Your task to perform on an android device: change the clock style Image 0: 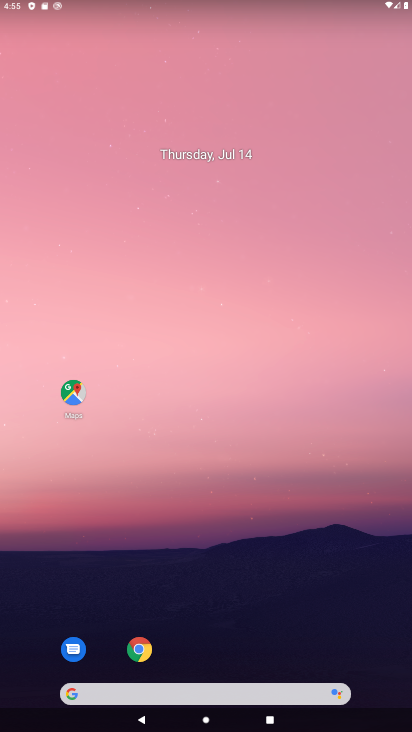
Step 0: drag from (193, 635) to (248, 74)
Your task to perform on an android device: change the clock style Image 1: 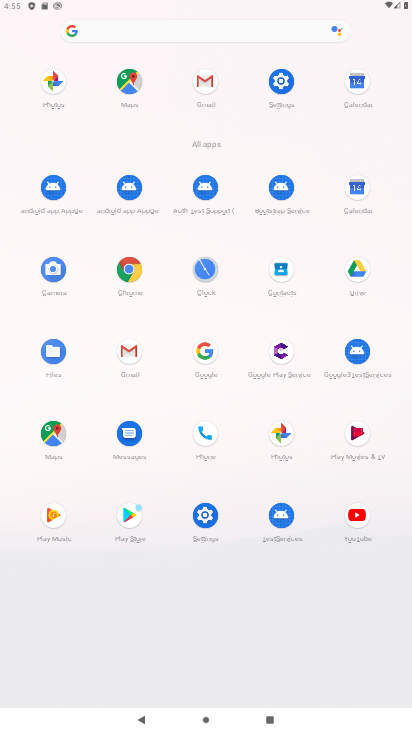
Step 1: click (207, 263)
Your task to perform on an android device: change the clock style Image 2: 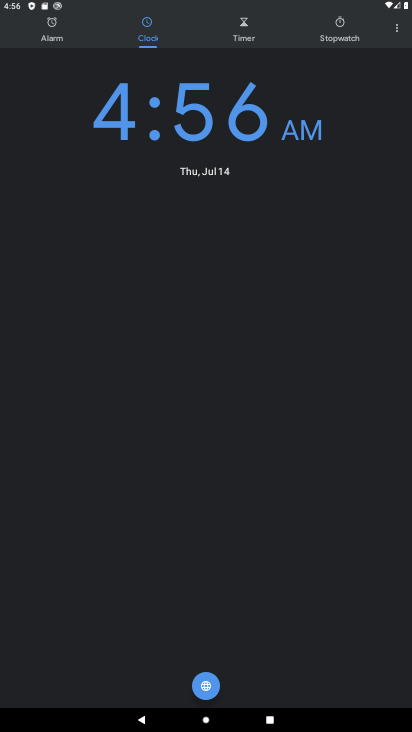
Step 2: click (402, 24)
Your task to perform on an android device: change the clock style Image 3: 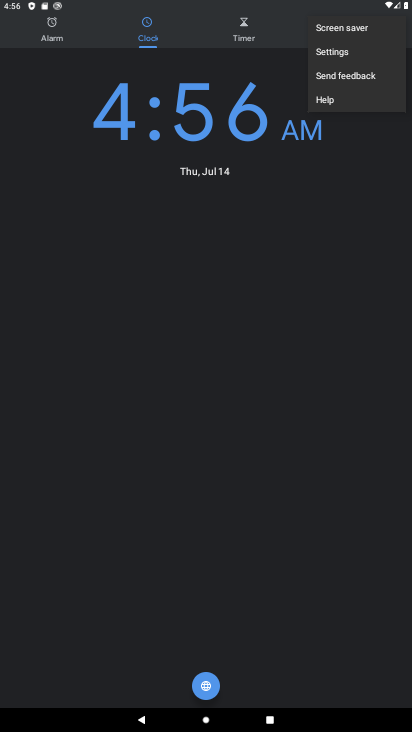
Step 3: click (328, 41)
Your task to perform on an android device: change the clock style Image 4: 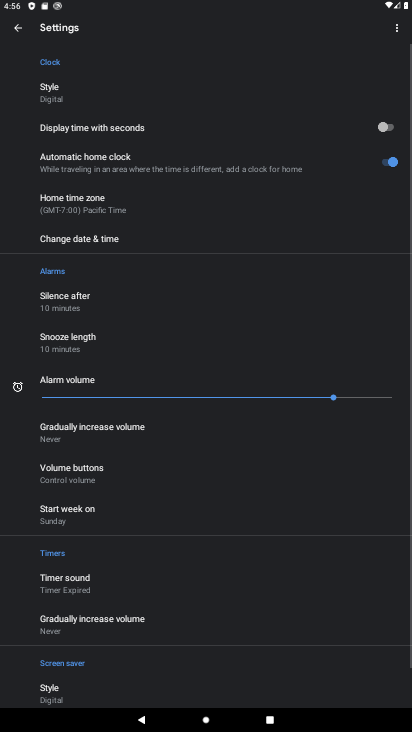
Step 4: click (60, 97)
Your task to perform on an android device: change the clock style Image 5: 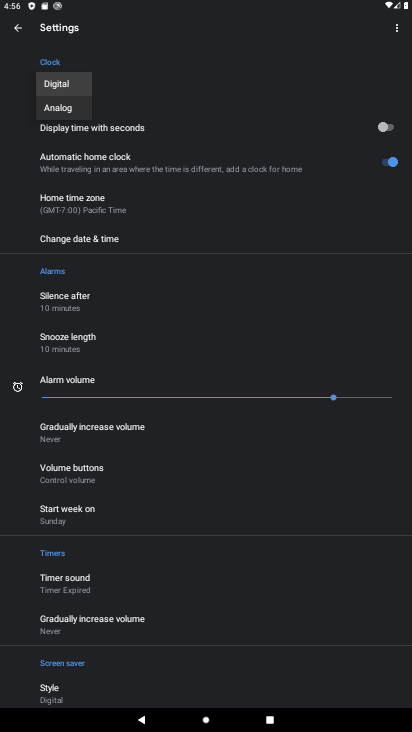
Step 5: click (67, 106)
Your task to perform on an android device: change the clock style Image 6: 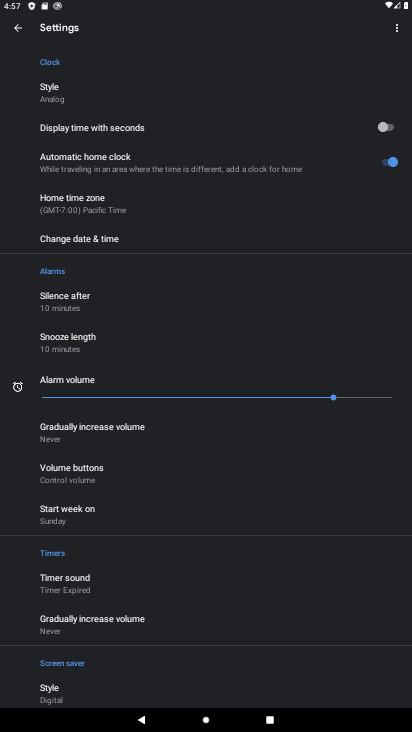
Step 6: task complete